Your task to perform on an android device: set an alarm Image 0: 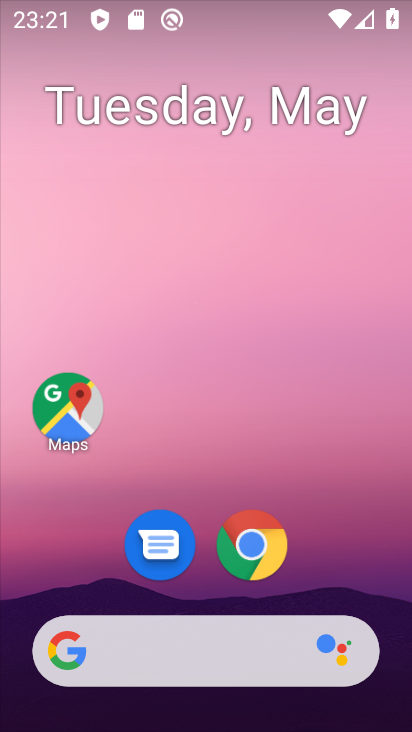
Step 0: drag from (228, 398) to (258, 187)
Your task to perform on an android device: set an alarm Image 1: 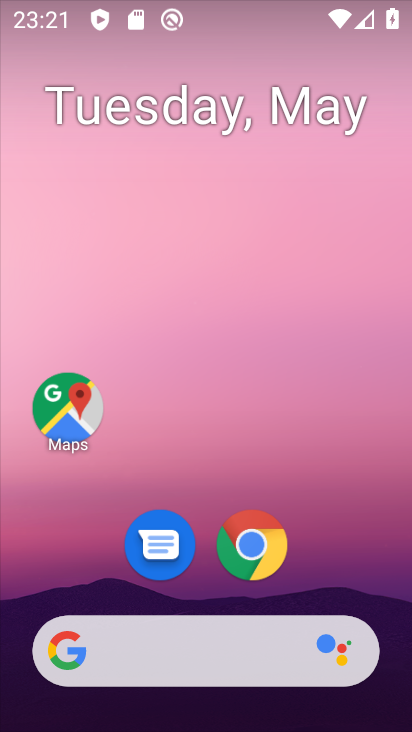
Step 1: drag from (201, 594) to (251, 93)
Your task to perform on an android device: set an alarm Image 2: 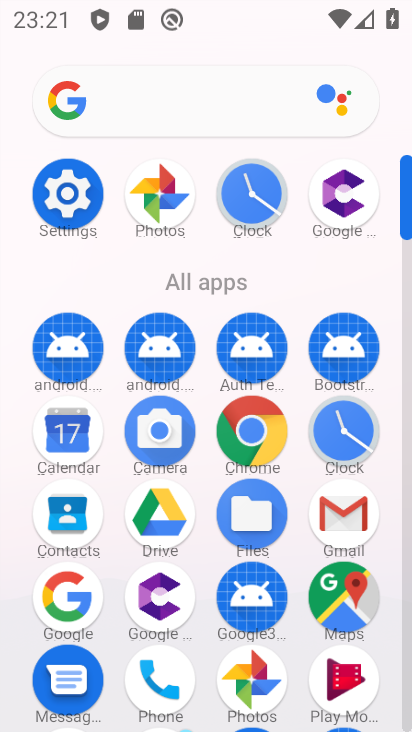
Step 2: drag from (205, 652) to (251, 273)
Your task to perform on an android device: set an alarm Image 3: 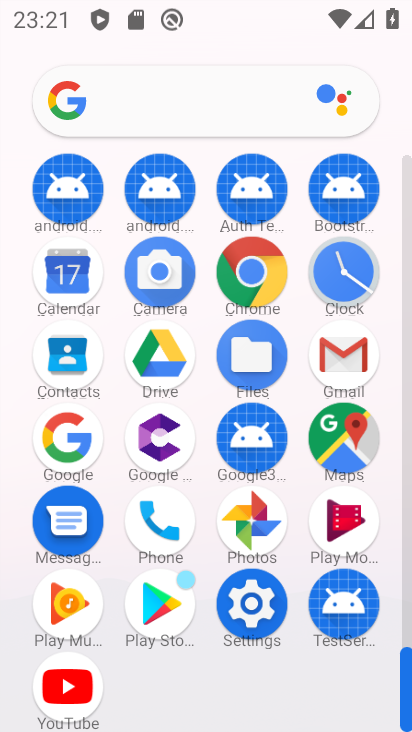
Step 3: click (345, 274)
Your task to perform on an android device: set an alarm Image 4: 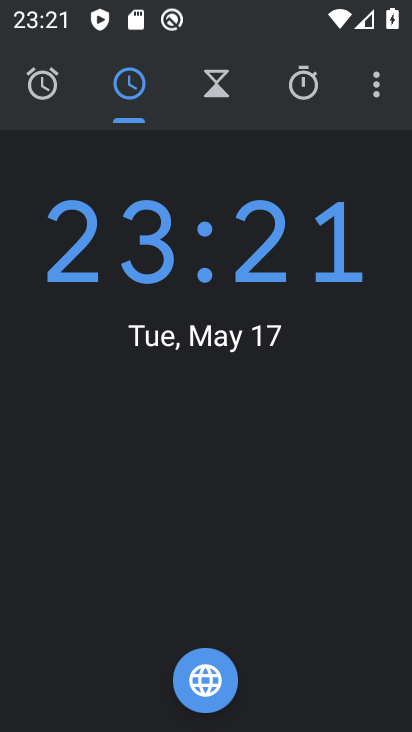
Step 4: click (40, 100)
Your task to perform on an android device: set an alarm Image 5: 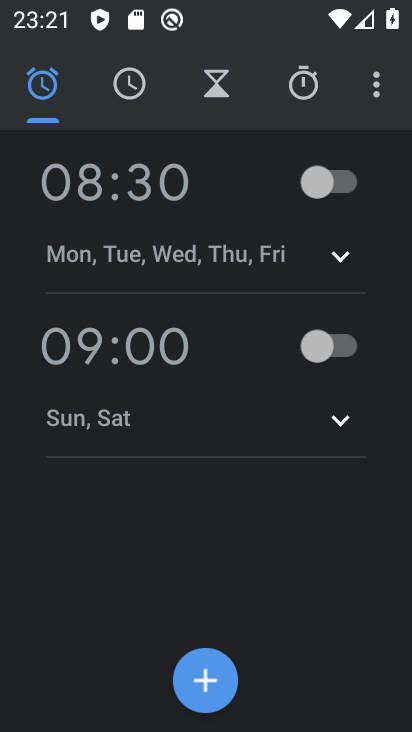
Step 5: task complete